Your task to perform on an android device: Go to ESPN.com Image 0: 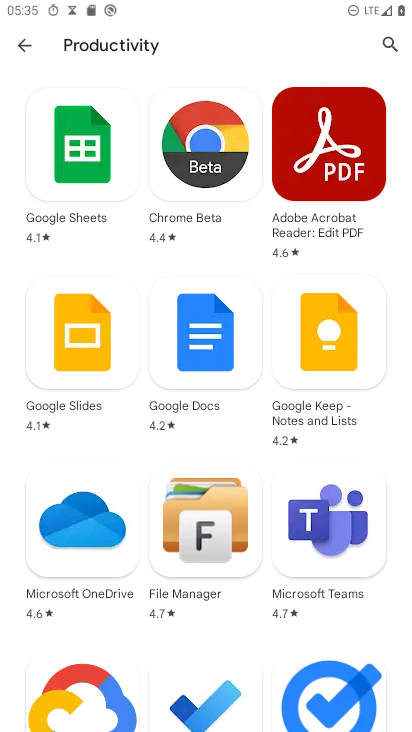
Step 0: press home button
Your task to perform on an android device: Go to ESPN.com Image 1: 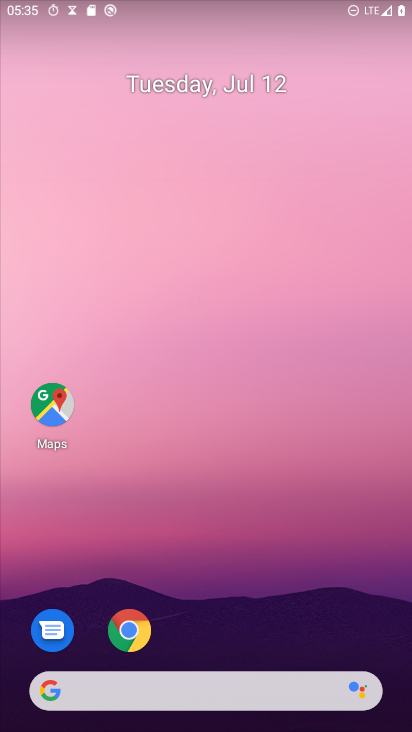
Step 1: drag from (309, 700) to (361, 0)
Your task to perform on an android device: Go to ESPN.com Image 2: 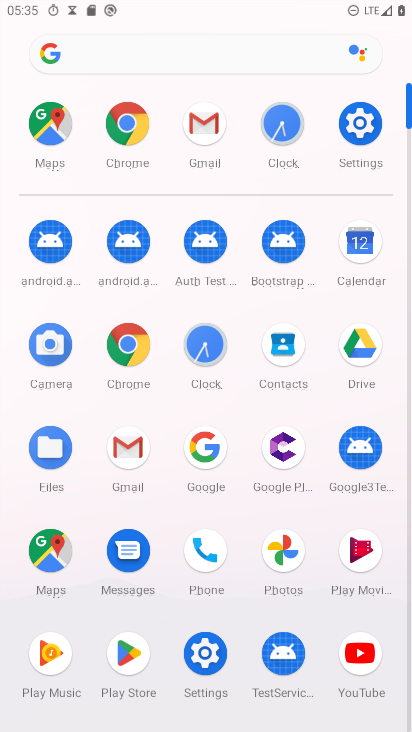
Step 2: click (131, 357)
Your task to perform on an android device: Go to ESPN.com Image 3: 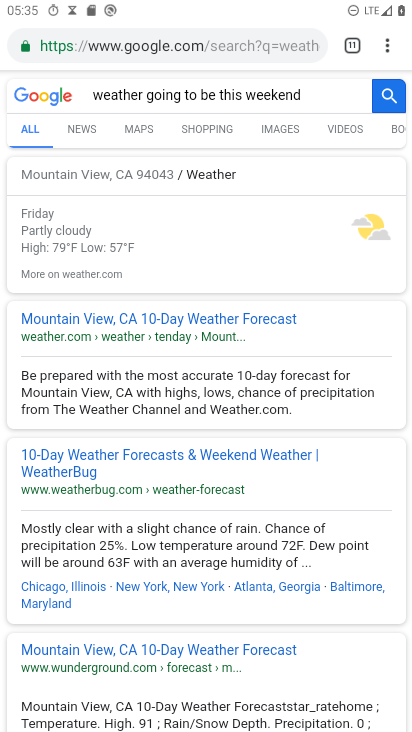
Step 3: click (258, 43)
Your task to perform on an android device: Go to ESPN.com Image 4: 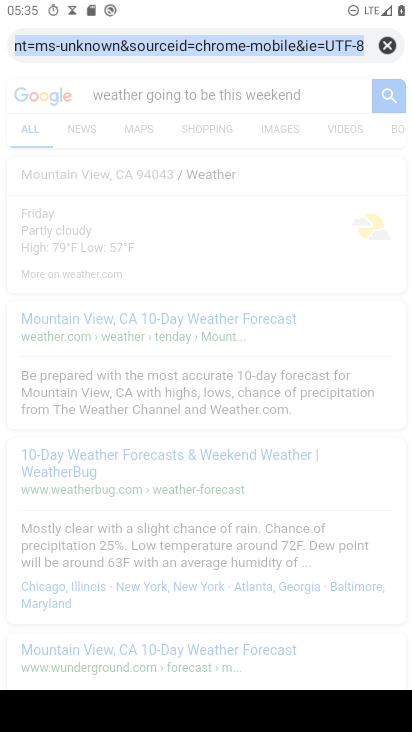
Step 4: type "espn.com"
Your task to perform on an android device: Go to ESPN.com Image 5: 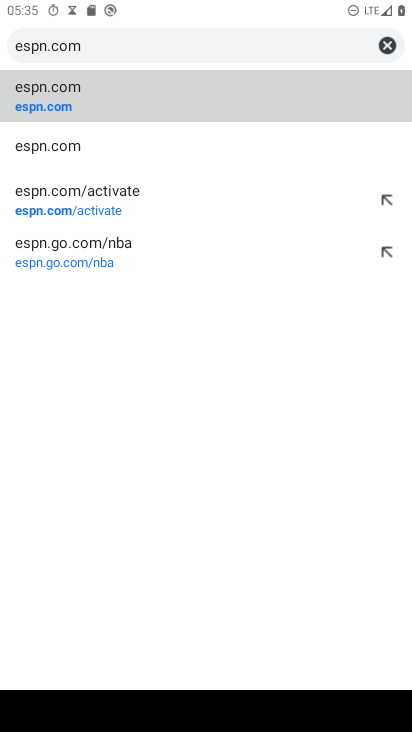
Step 5: click (176, 107)
Your task to perform on an android device: Go to ESPN.com Image 6: 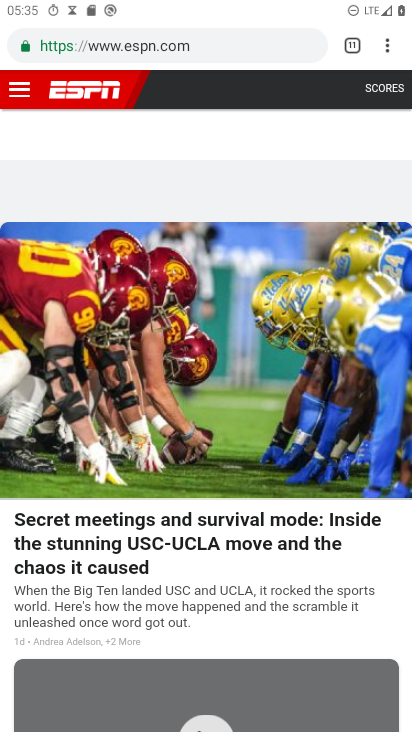
Step 6: task complete